Your task to perform on an android device: Open calendar and show me the third week of next month Image 0: 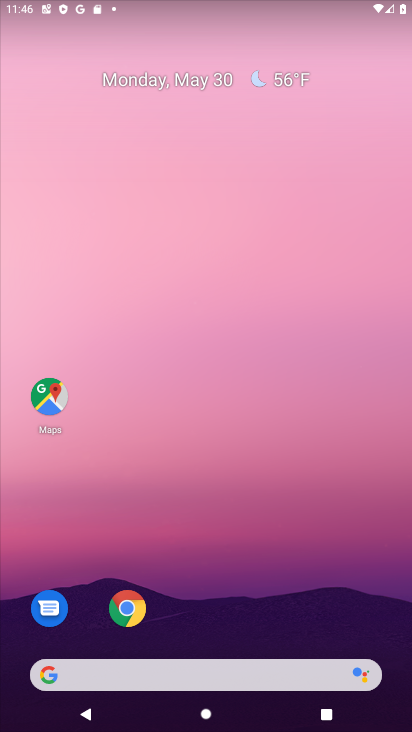
Step 0: drag from (180, 632) to (247, 112)
Your task to perform on an android device: Open calendar and show me the third week of next month Image 1: 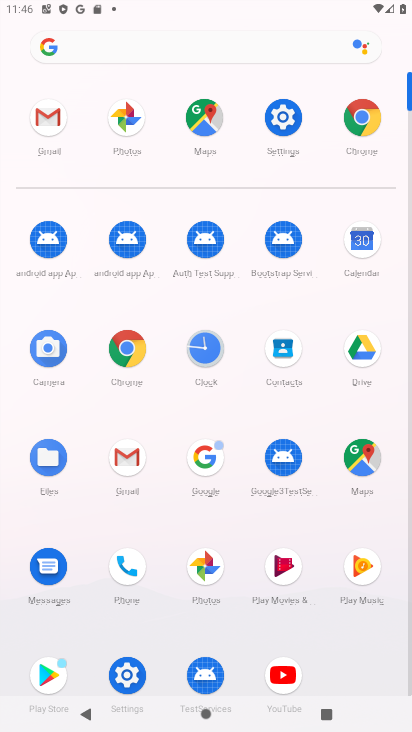
Step 1: click (362, 241)
Your task to perform on an android device: Open calendar and show me the third week of next month Image 2: 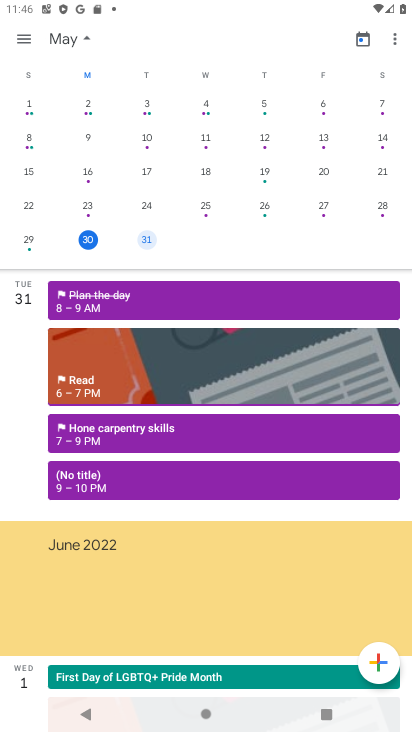
Step 2: drag from (396, 247) to (9, 223)
Your task to perform on an android device: Open calendar and show me the third week of next month Image 3: 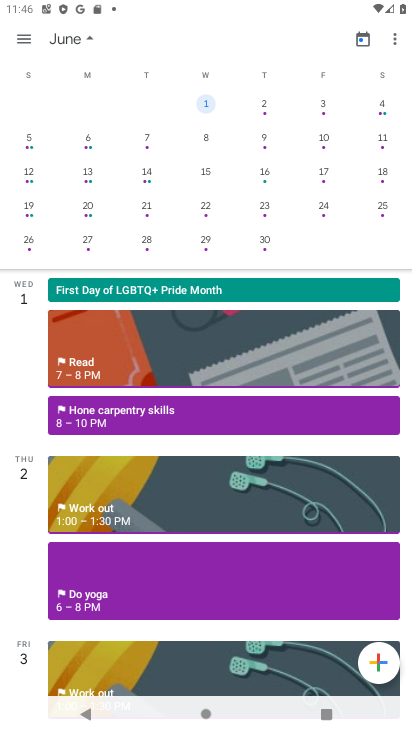
Step 3: click (202, 171)
Your task to perform on an android device: Open calendar and show me the third week of next month Image 4: 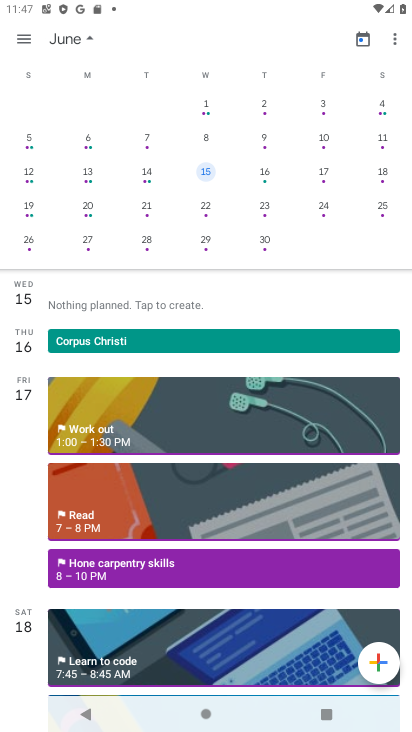
Step 4: task complete